Your task to perform on an android device: Go to CNN.com Image 0: 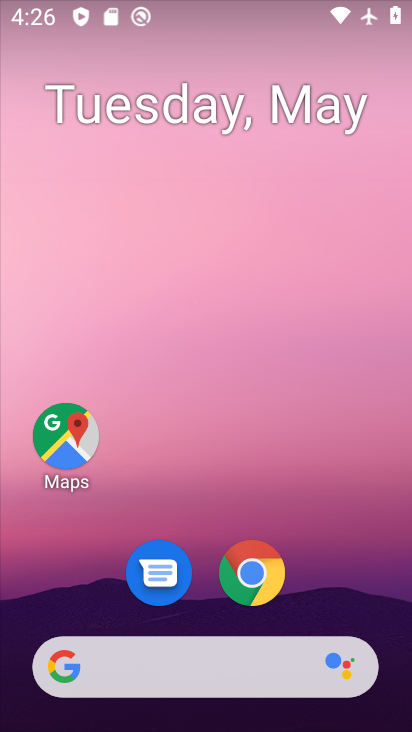
Step 0: click (256, 567)
Your task to perform on an android device: Go to CNN.com Image 1: 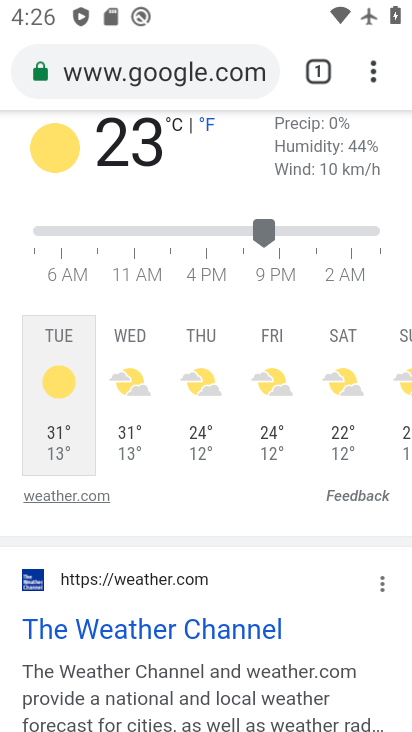
Step 1: click (186, 70)
Your task to perform on an android device: Go to CNN.com Image 2: 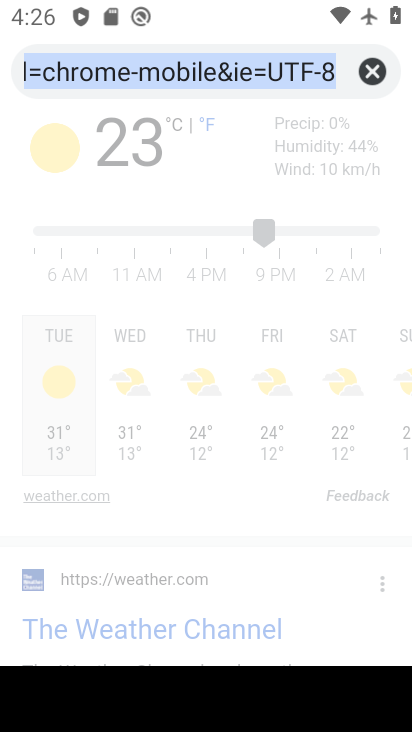
Step 2: type "cnn.com"
Your task to perform on an android device: Go to CNN.com Image 3: 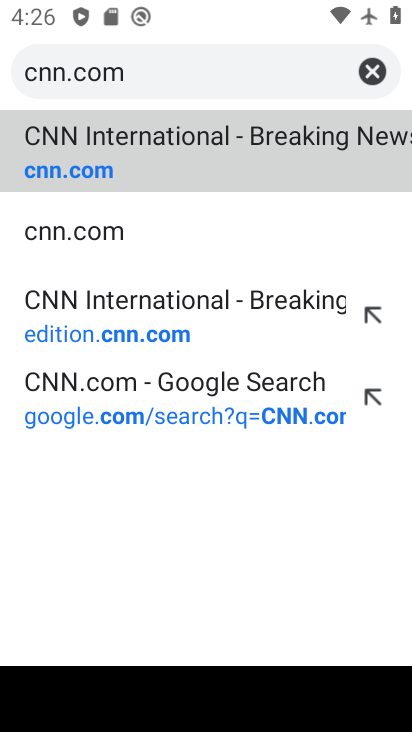
Step 3: click (120, 159)
Your task to perform on an android device: Go to CNN.com Image 4: 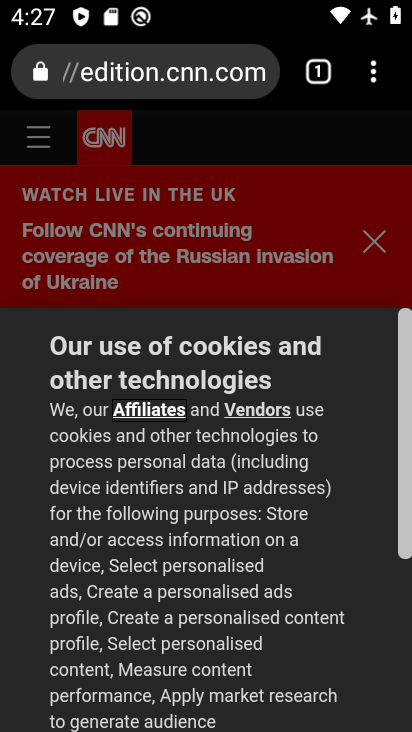
Step 4: task complete